Your task to perform on an android device: Open Chrome and go to settings Image 0: 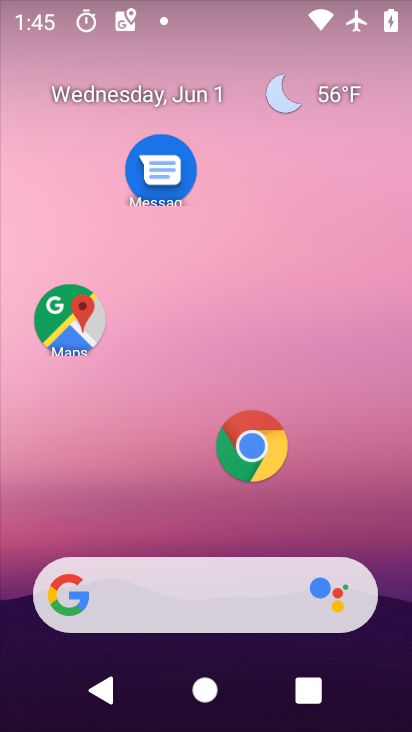
Step 0: drag from (180, 496) to (305, 73)
Your task to perform on an android device: Open Chrome and go to settings Image 1: 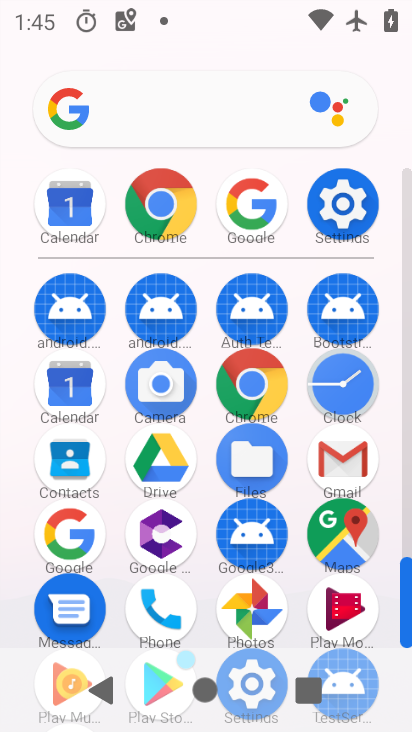
Step 1: click (252, 380)
Your task to perform on an android device: Open Chrome and go to settings Image 2: 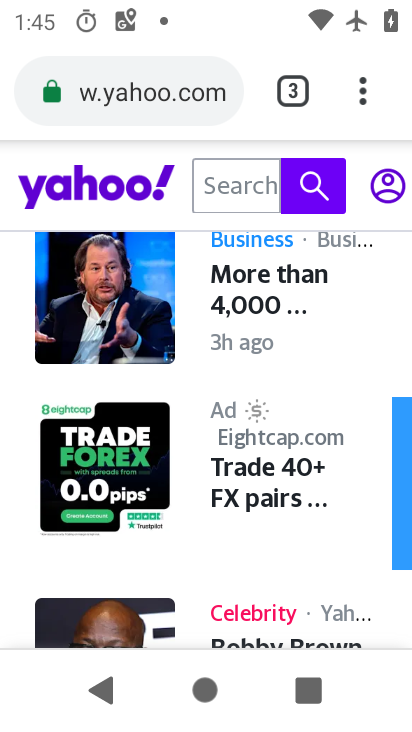
Step 2: click (363, 98)
Your task to perform on an android device: Open Chrome and go to settings Image 3: 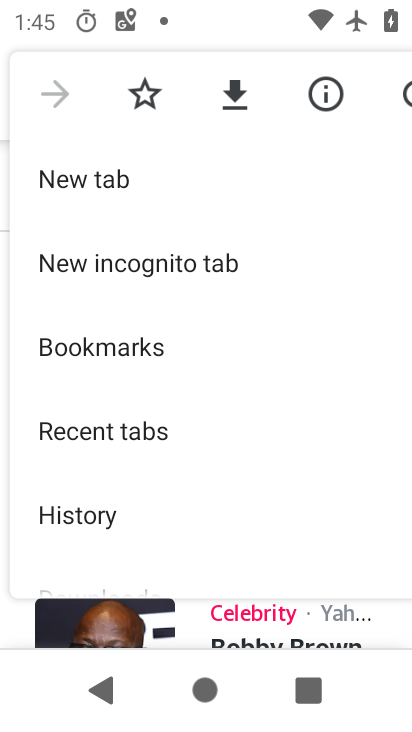
Step 3: drag from (210, 486) to (281, 111)
Your task to perform on an android device: Open Chrome and go to settings Image 4: 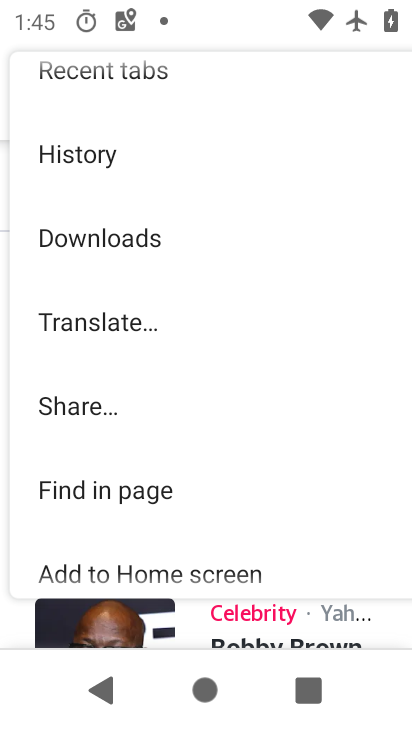
Step 4: drag from (202, 446) to (247, 76)
Your task to perform on an android device: Open Chrome and go to settings Image 5: 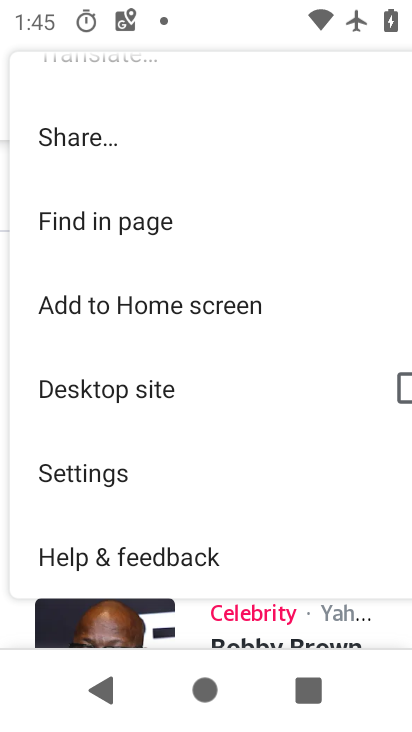
Step 5: click (131, 489)
Your task to perform on an android device: Open Chrome and go to settings Image 6: 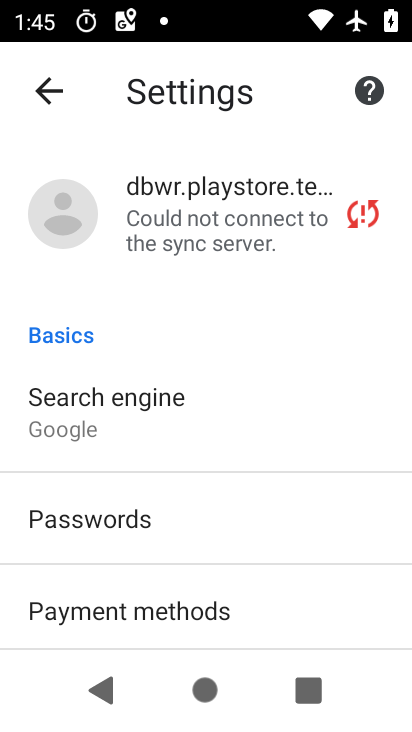
Step 6: task complete